Your task to perform on an android device: Open settings Image 0: 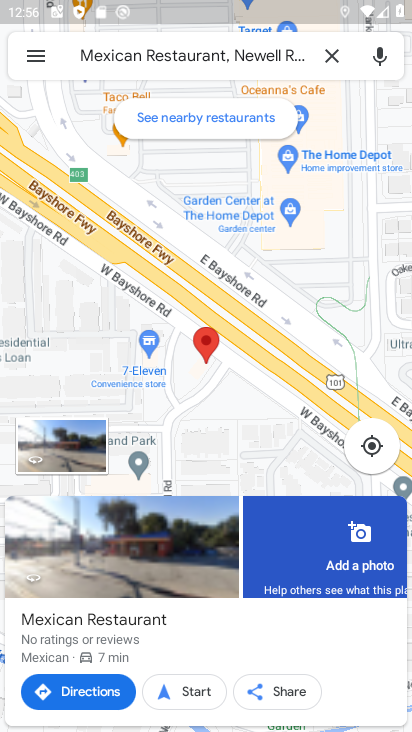
Step 0: press home button
Your task to perform on an android device: Open settings Image 1: 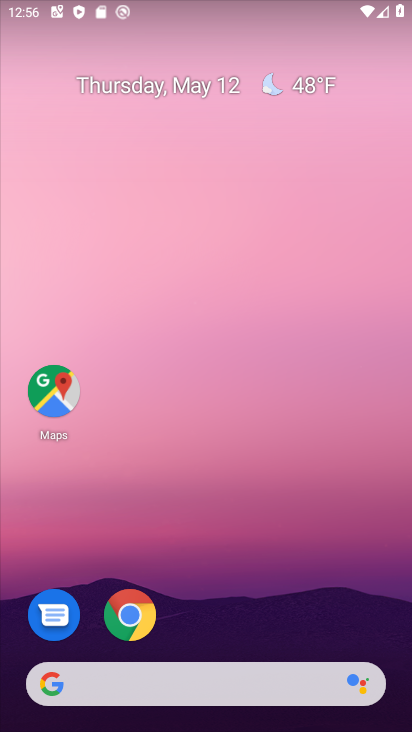
Step 1: drag from (165, 660) to (285, 6)
Your task to perform on an android device: Open settings Image 2: 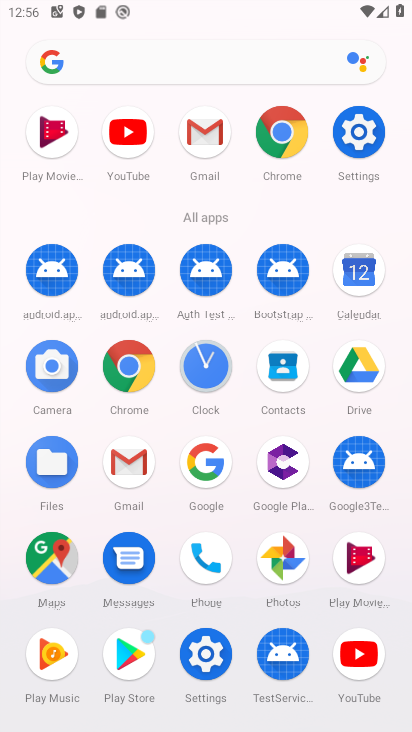
Step 2: click (364, 145)
Your task to perform on an android device: Open settings Image 3: 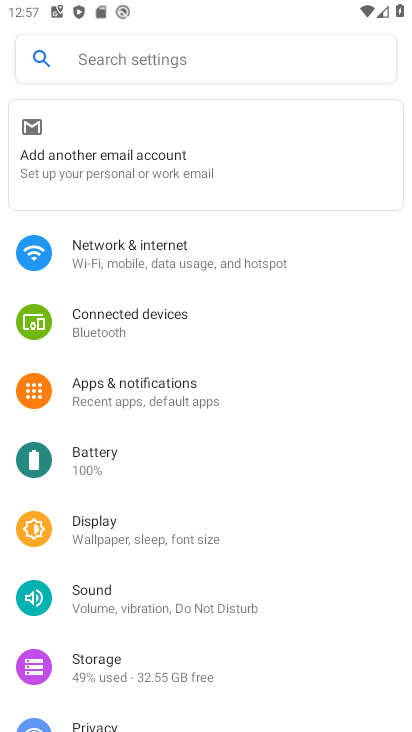
Step 3: task complete